Your task to perform on an android device: turn off improve location accuracy Image 0: 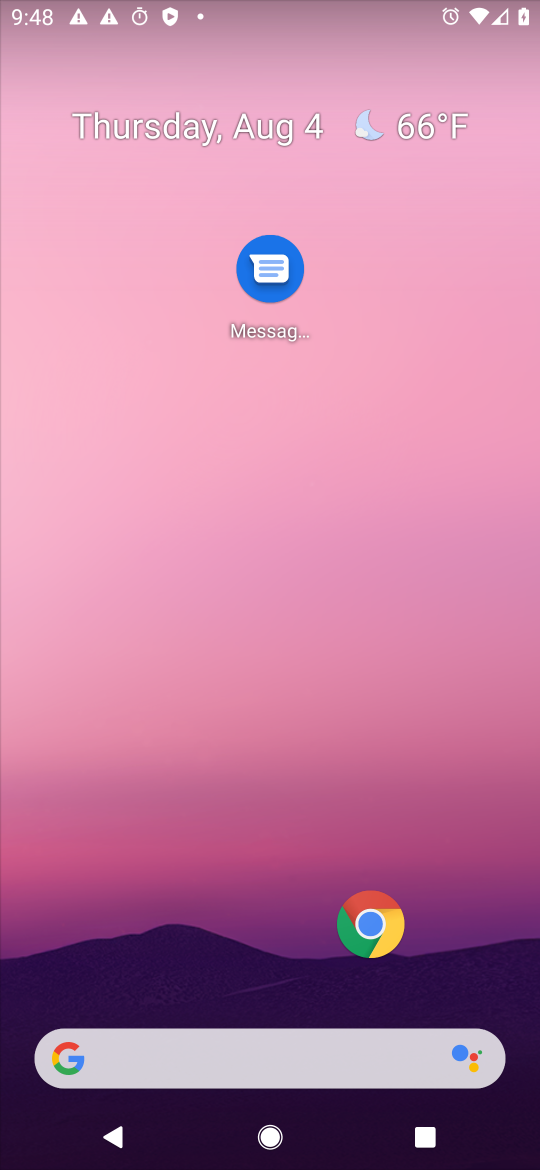
Step 0: drag from (285, 967) to (306, 258)
Your task to perform on an android device: turn off improve location accuracy Image 1: 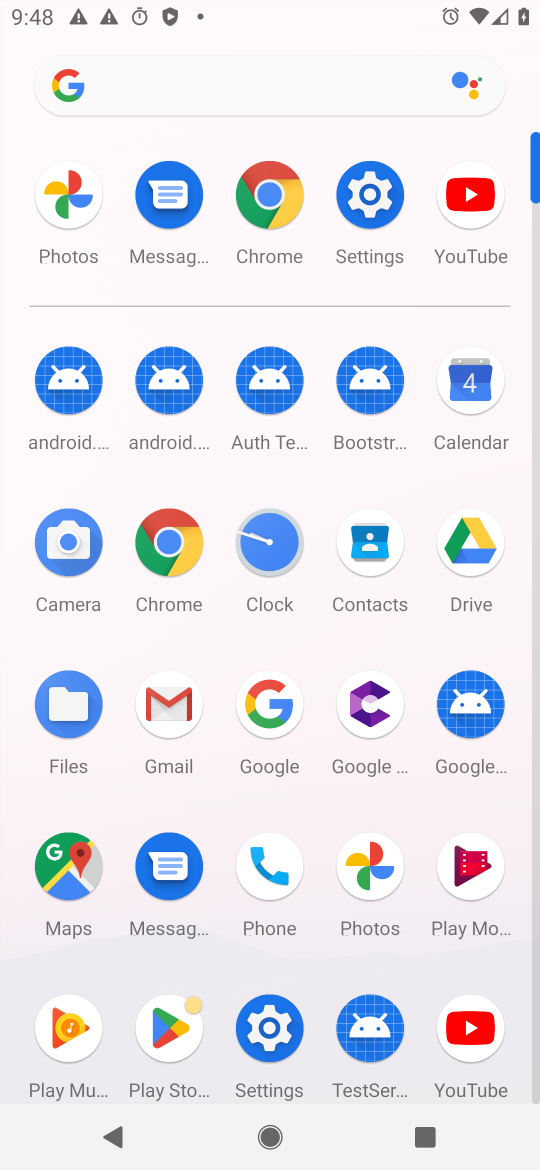
Step 1: click (365, 194)
Your task to perform on an android device: turn off improve location accuracy Image 2: 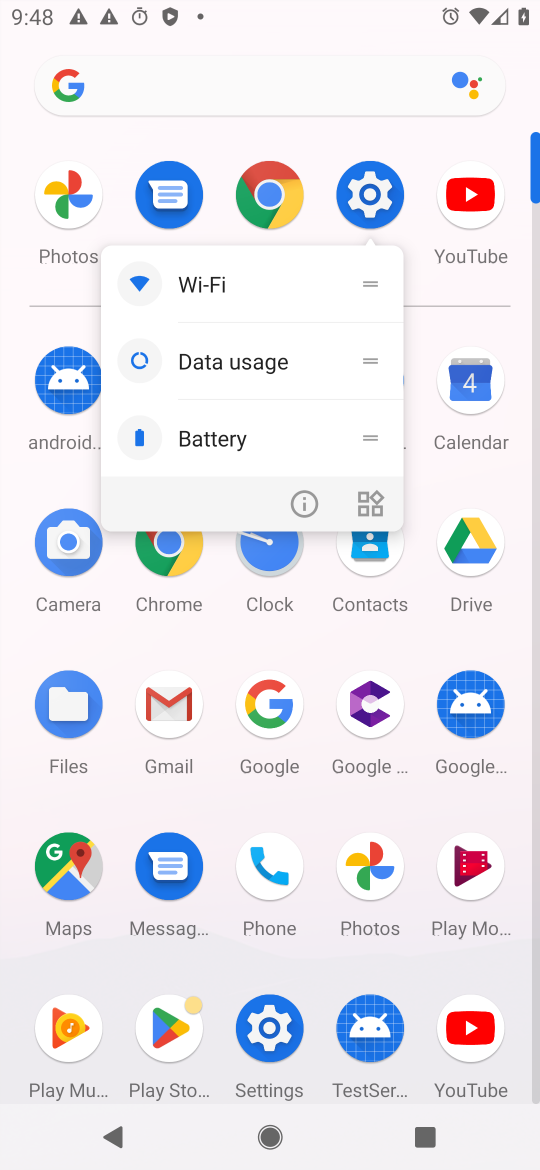
Step 2: click (300, 494)
Your task to perform on an android device: turn off improve location accuracy Image 3: 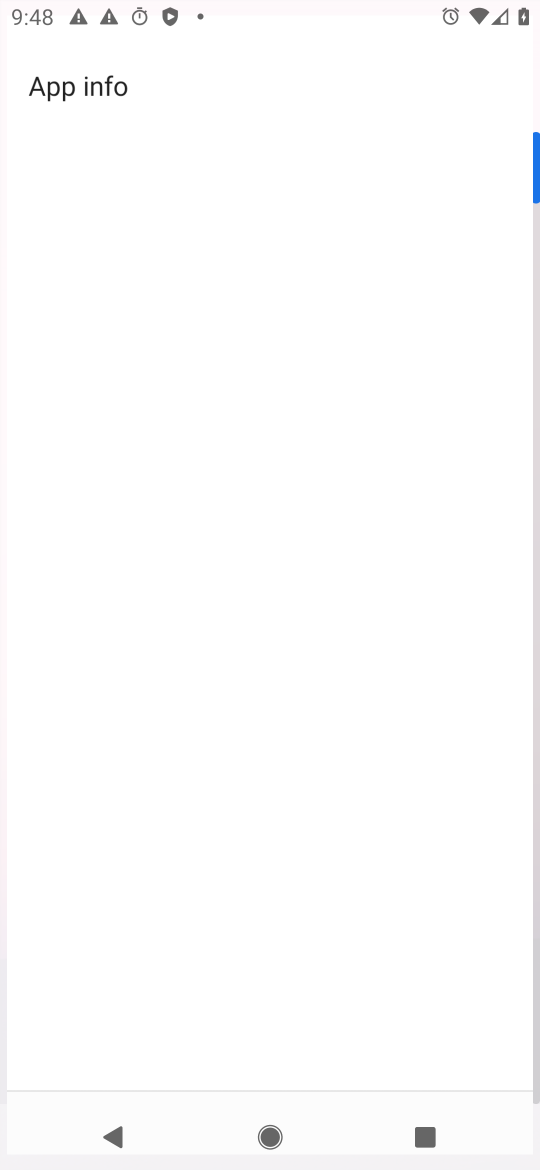
Step 3: click (300, 494)
Your task to perform on an android device: turn off improve location accuracy Image 4: 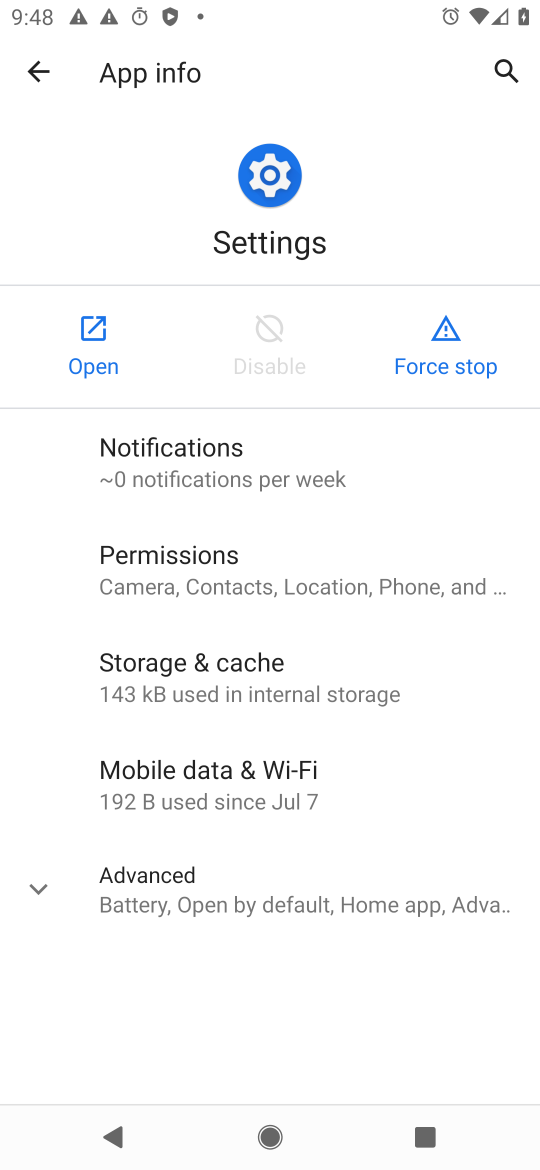
Step 4: click (53, 326)
Your task to perform on an android device: turn off improve location accuracy Image 5: 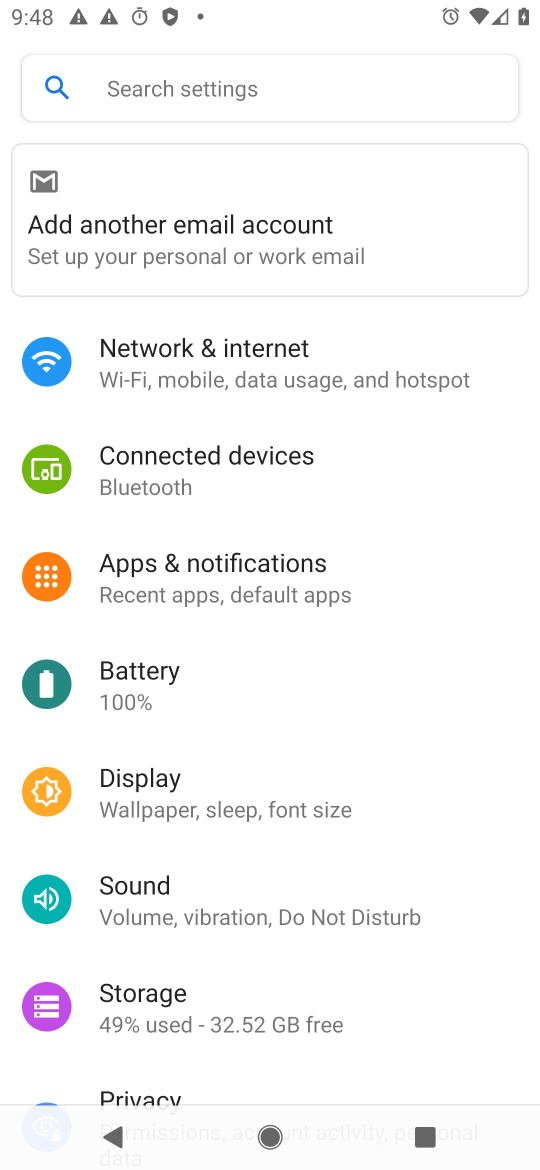
Step 5: drag from (227, 956) to (429, 171)
Your task to perform on an android device: turn off improve location accuracy Image 6: 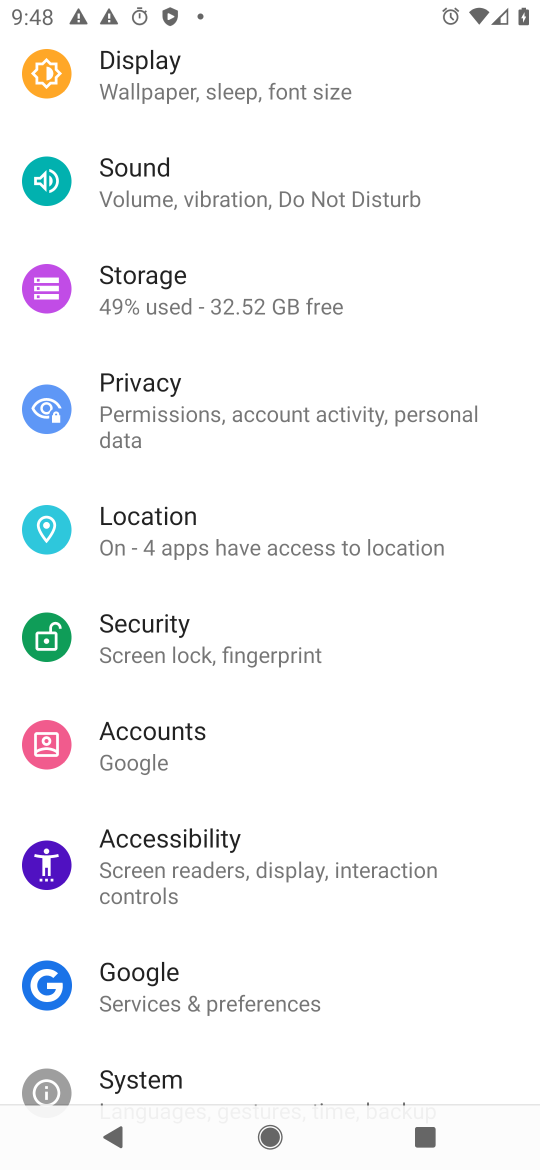
Step 6: drag from (269, 838) to (347, 347)
Your task to perform on an android device: turn off improve location accuracy Image 7: 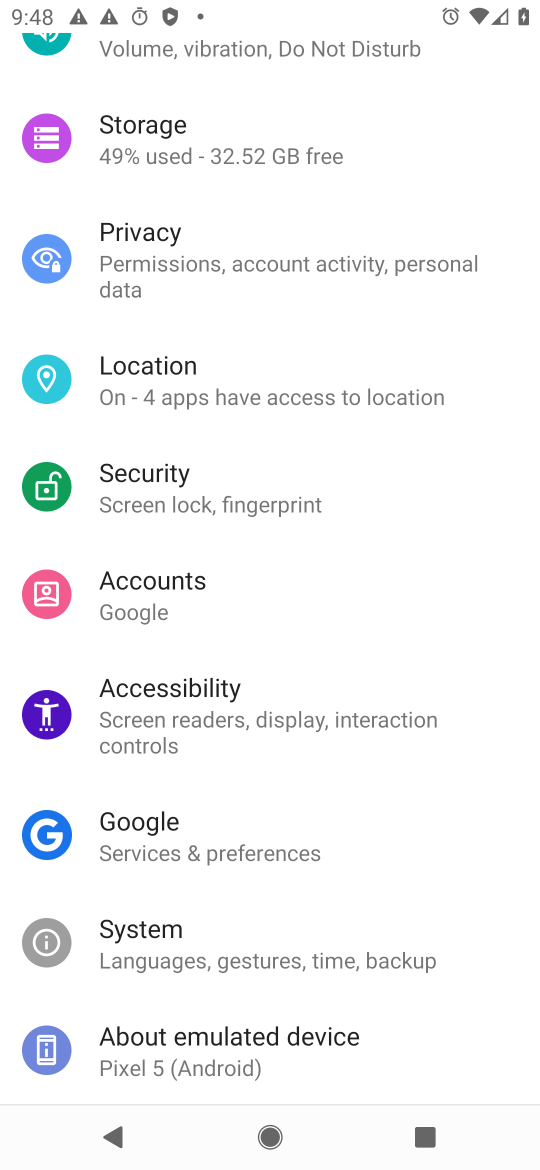
Step 7: click (215, 360)
Your task to perform on an android device: turn off improve location accuracy Image 8: 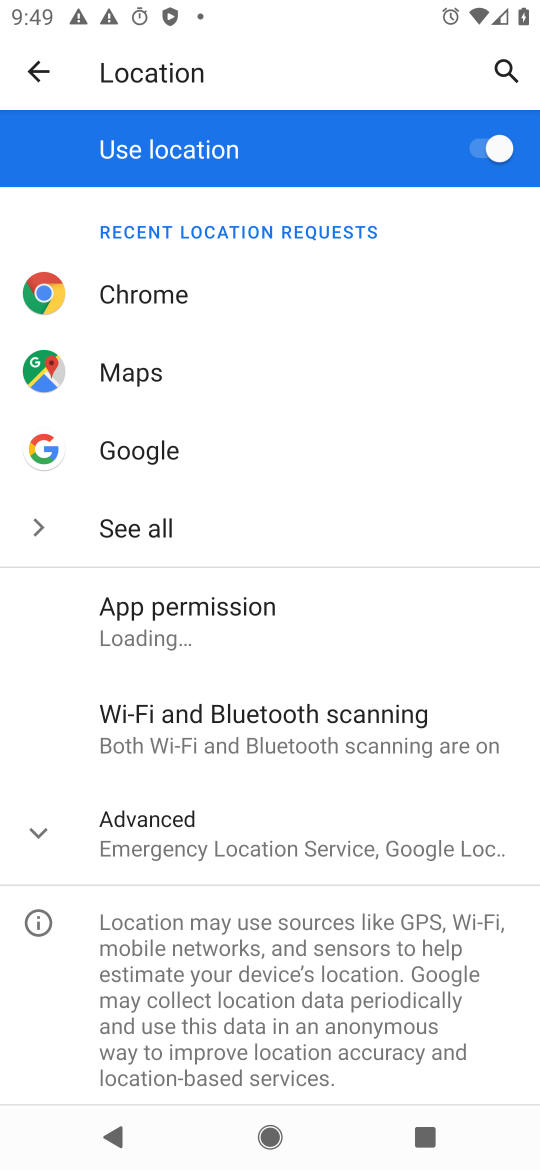
Step 8: drag from (322, 728) to (322, 507)
Your task to perform on an android device: turn off improve location accuracy Image 9: 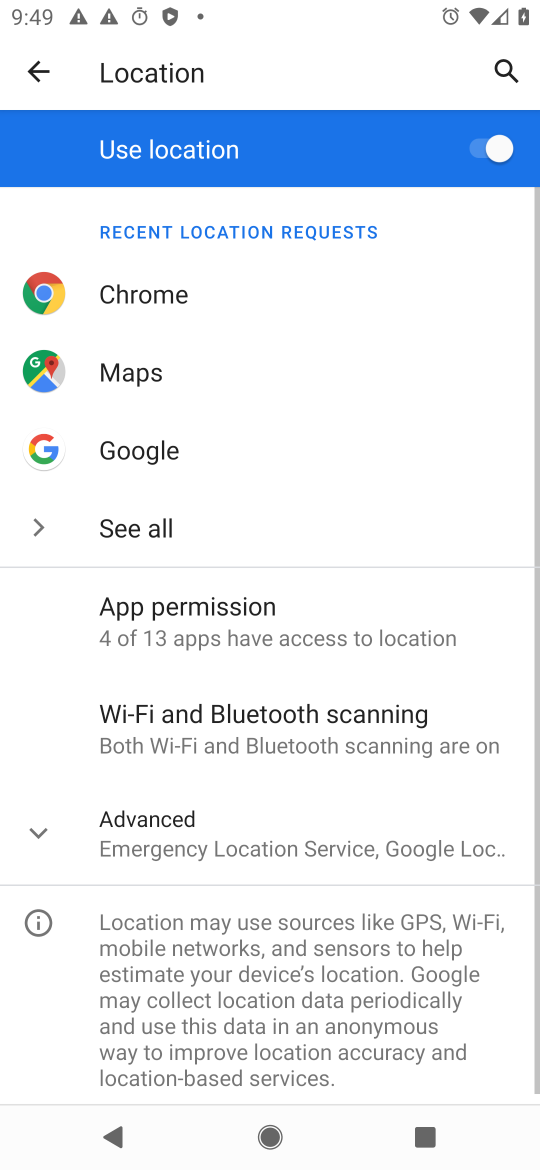
Step 9: click (206, 856)
Your task to perform on an android device: turn off improve location accuracy Image 10: 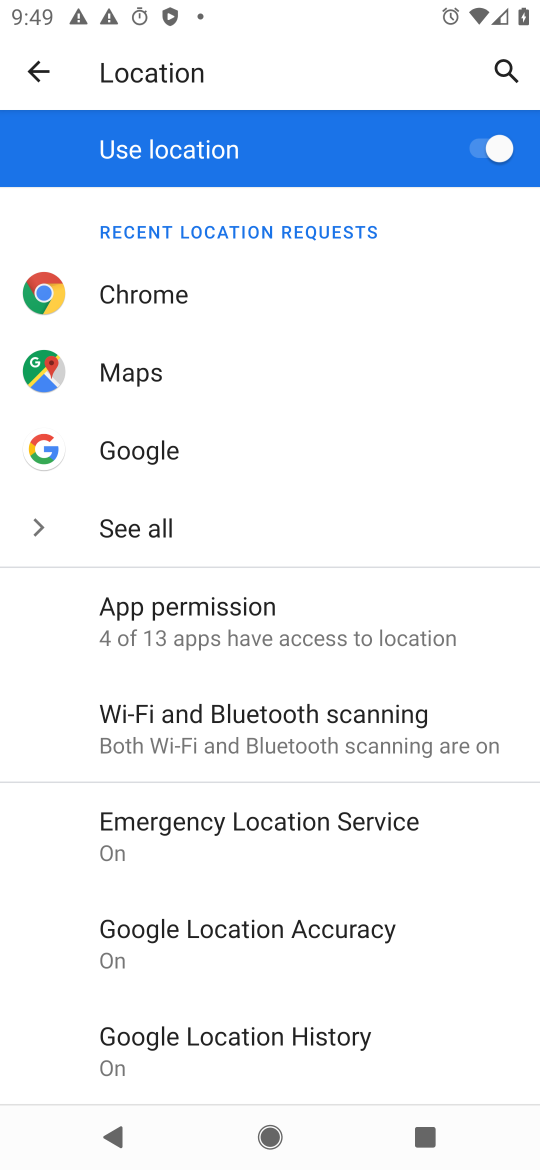
Step 10: click (291, 939)
Your task to perform on an android device: turn off improve location accuracy Image 11: 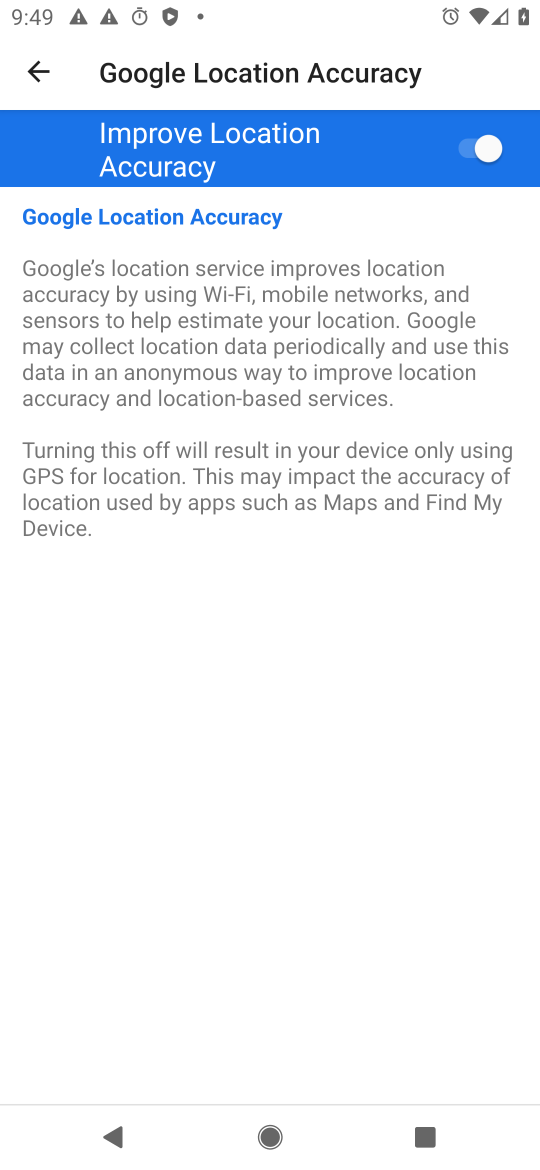
Step 11: click (472, 150)
Your task to perform on an android device: turn off improve location accuracy Image 12: 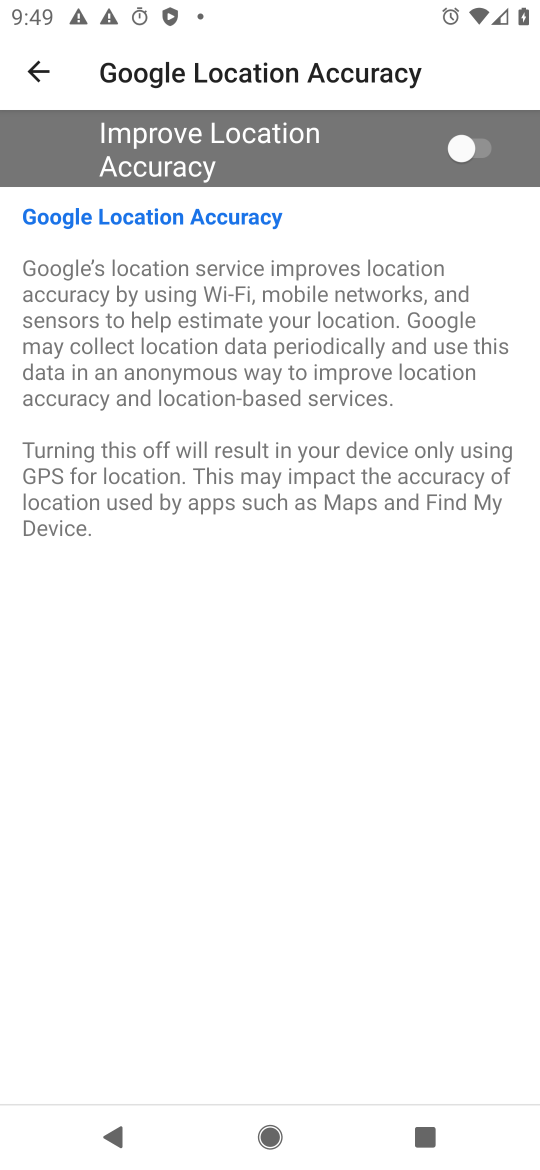
Step 12: task complete